Your task to perform on an android device: Go to Maps Image 0: 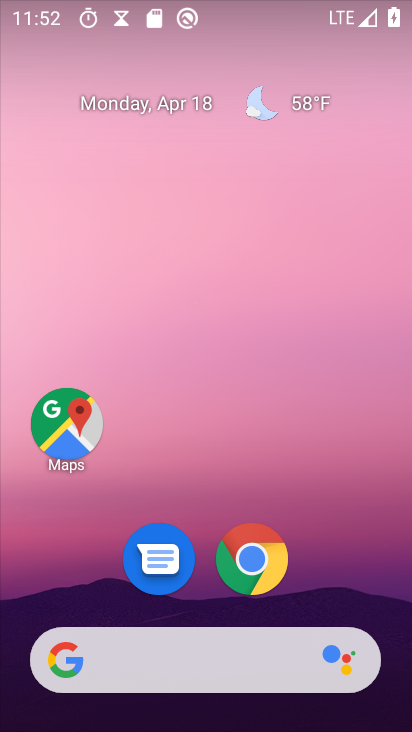
Step 0: click (51, 420)
Your task to perform on an android device: Go to Maps Image 1: 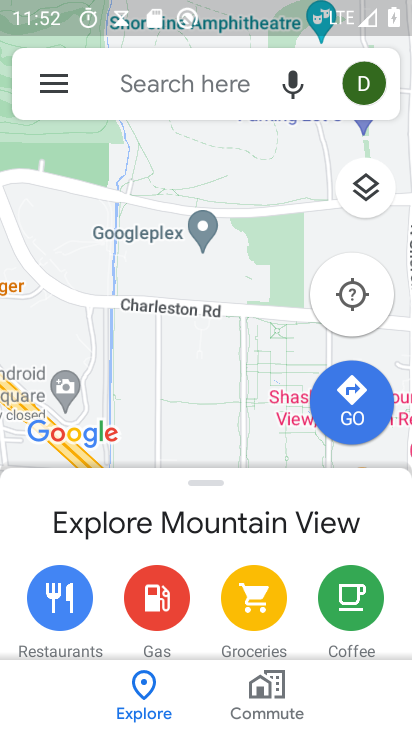
Step 1: task complete